Your task to perform on an android device: turn off notifications settings in the gmail app Image 0: 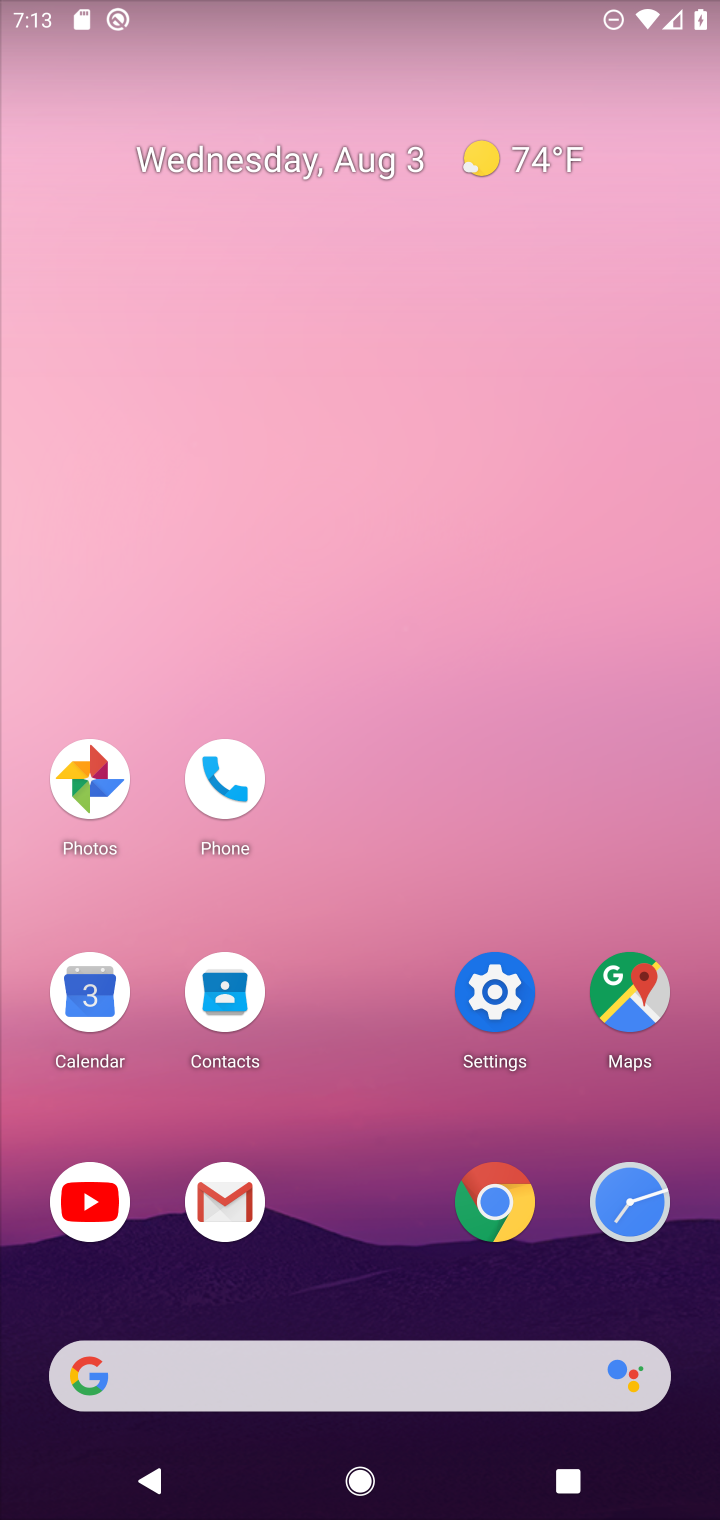
Step 0: click (216, 1199)
Your task to perform on an android device: turn off notifications settings in the gmail app Image 1: 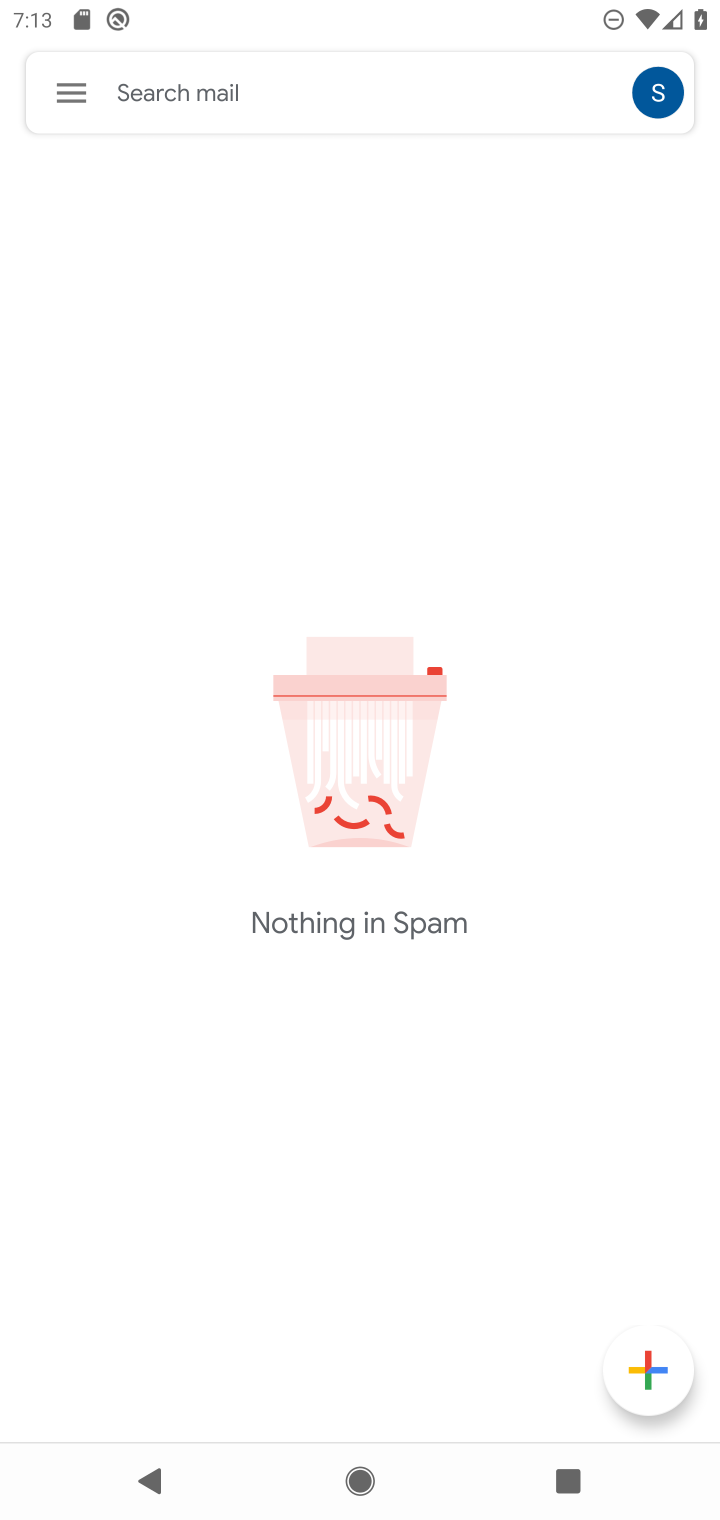
Step 1: click (68, 85)
Your task to perform on an android device: turn off notifications settings in the gmail app Image 2: 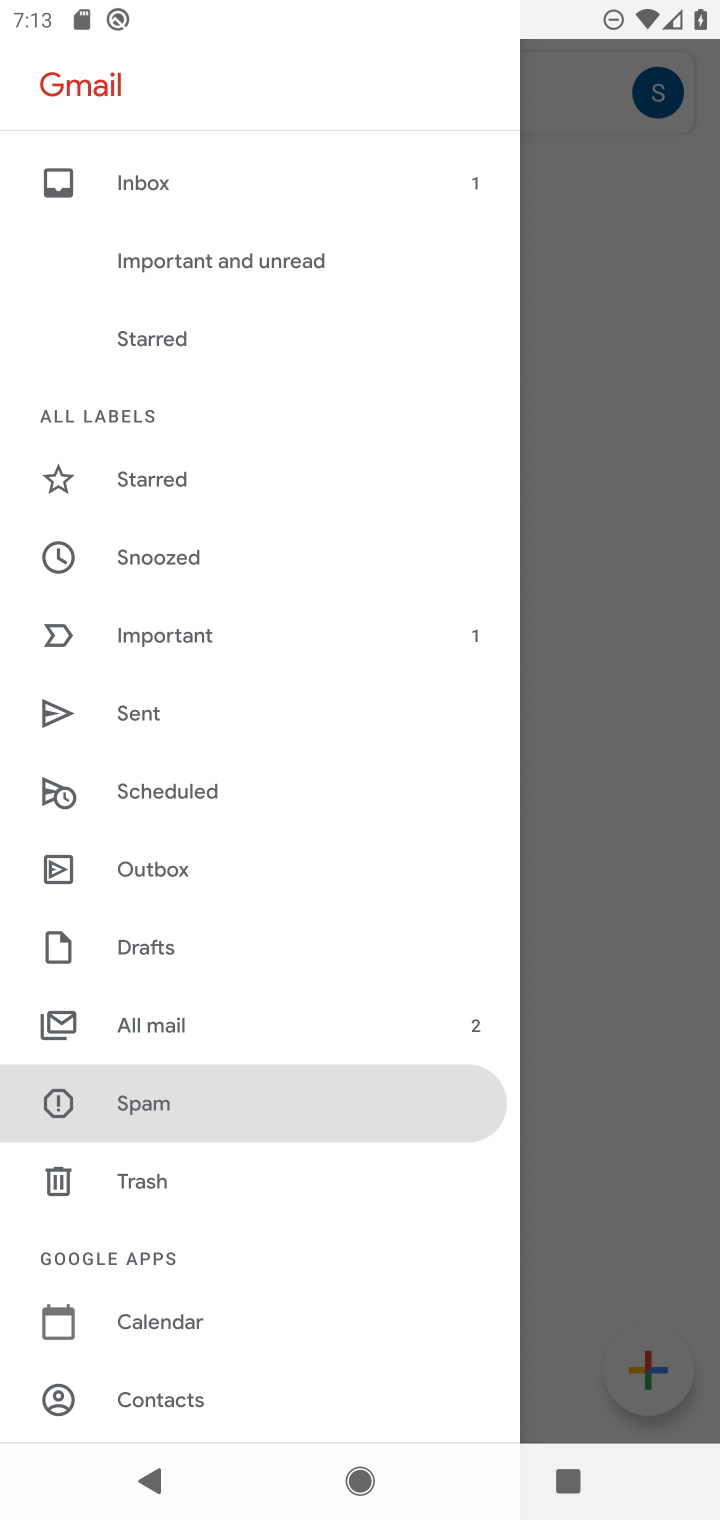
Step 2: drag from (253, 1307) to (258, 585)
Your task to perform on an android device: turn off notifications settings in the gmail app Image 3: 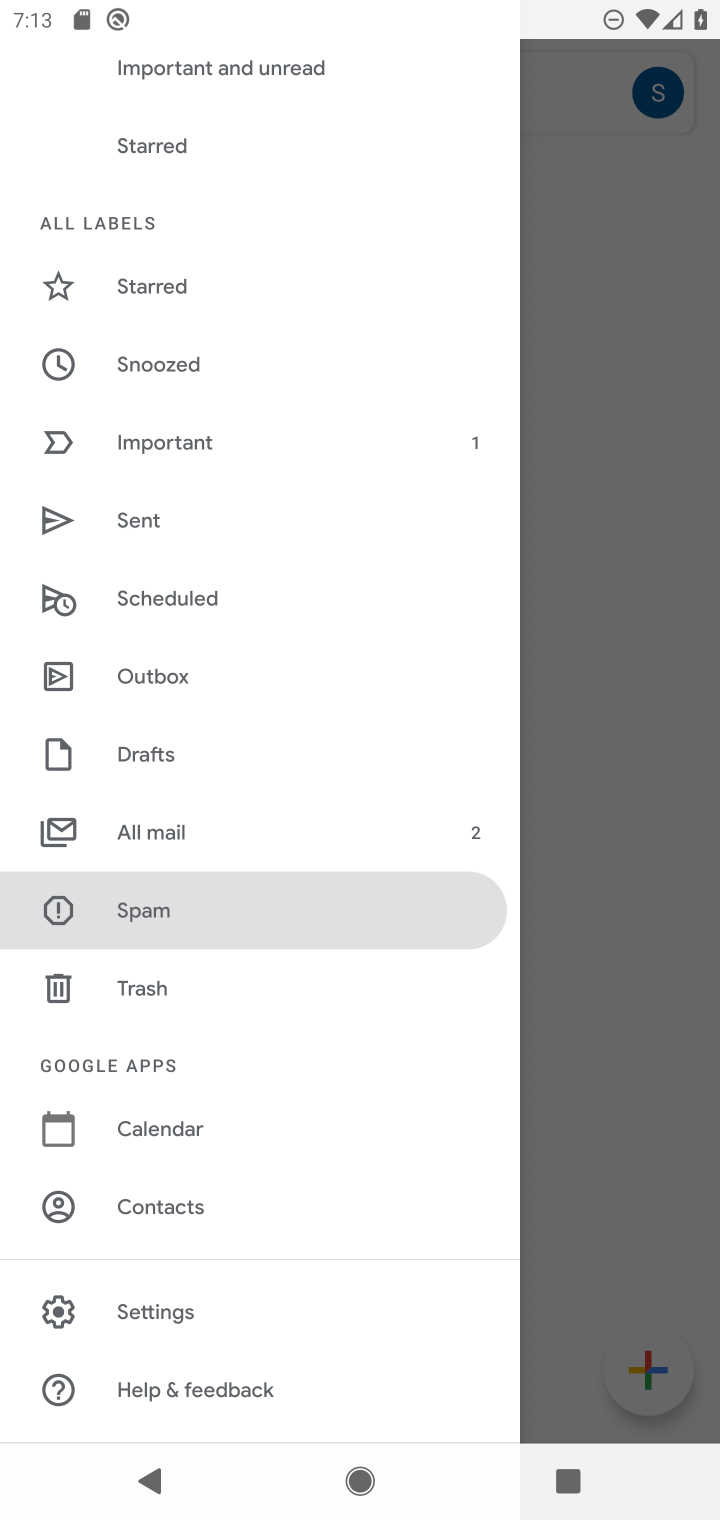
Step 3: click (150, 1308)
Your task to perform on an android device: turn off notifications settings in the gmail app Image 4: 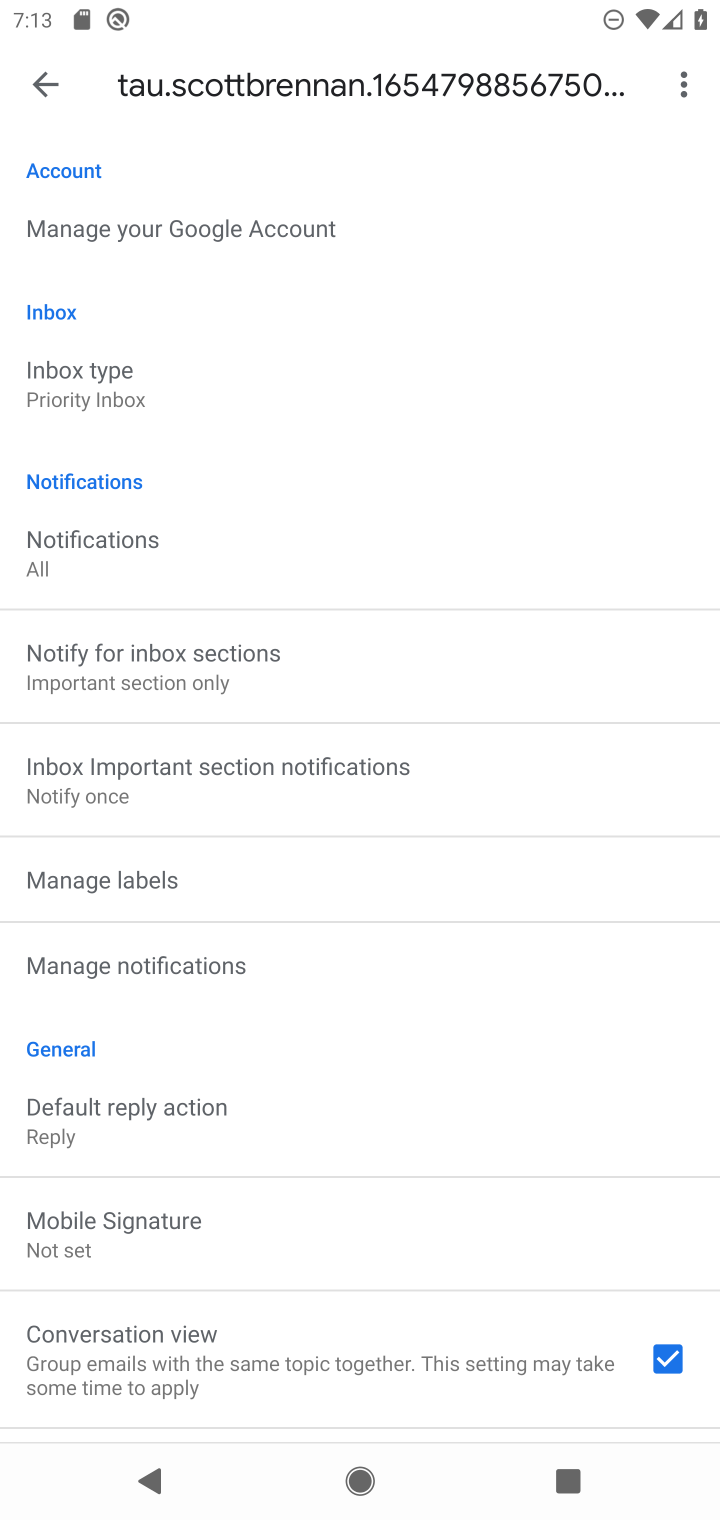
Step 4: click (50, 84)
Your task to perform on an android device: turn off notifications settings in the gmail app Image 5: 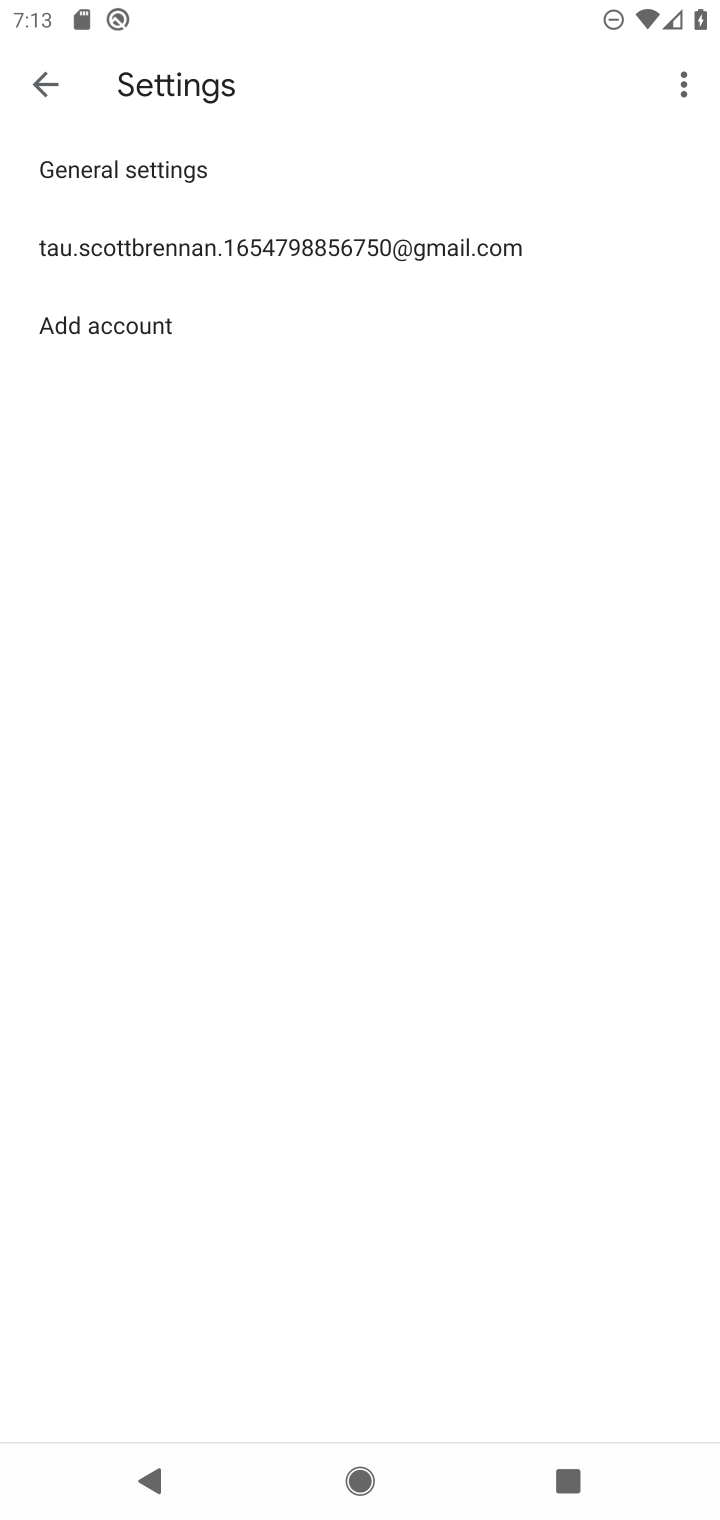
Step 5: click (103, 166)
Your task to perform on an android device: turn off notifications settings in the gmail app Image 6: 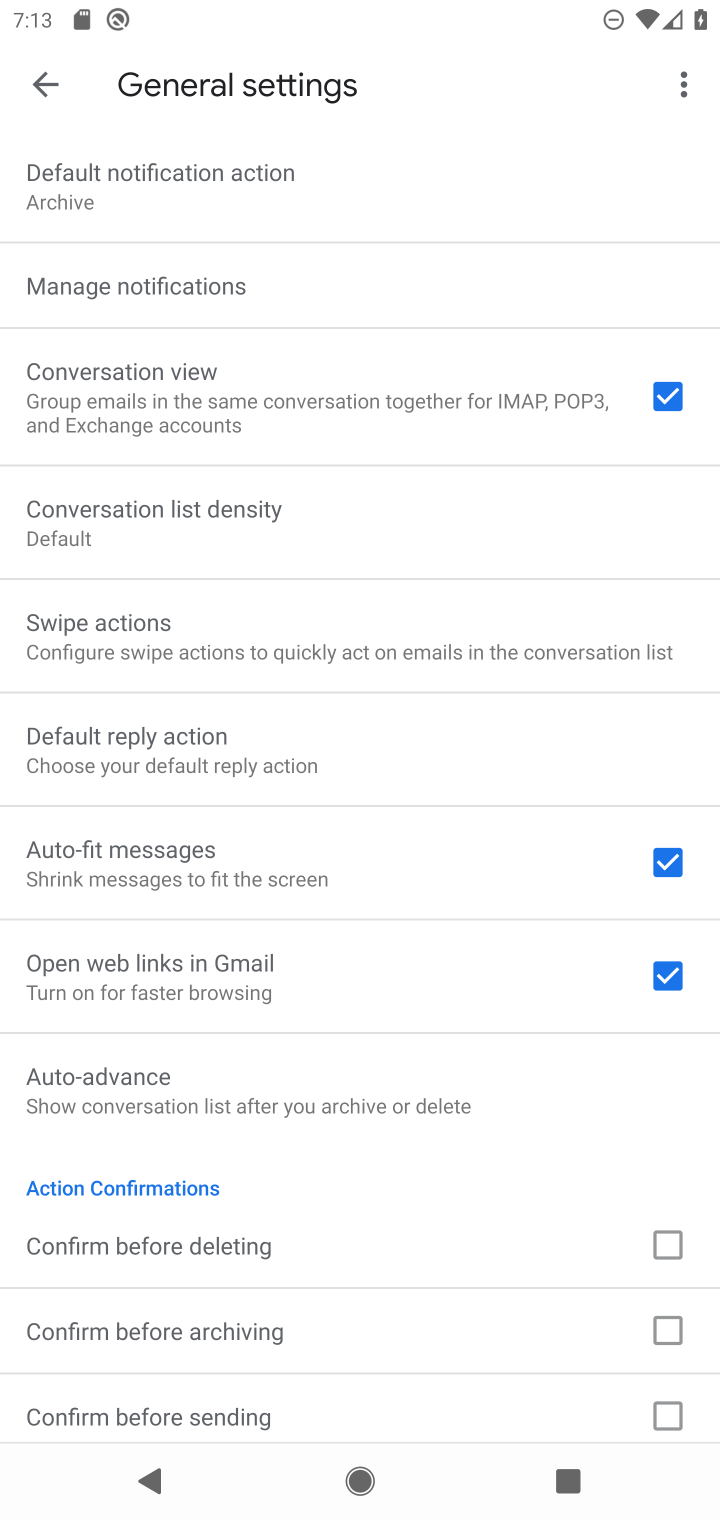
Step 6: click (128, 289)
Your task to perform on an android device: turn off notifications settings in the gmail app Image 7: 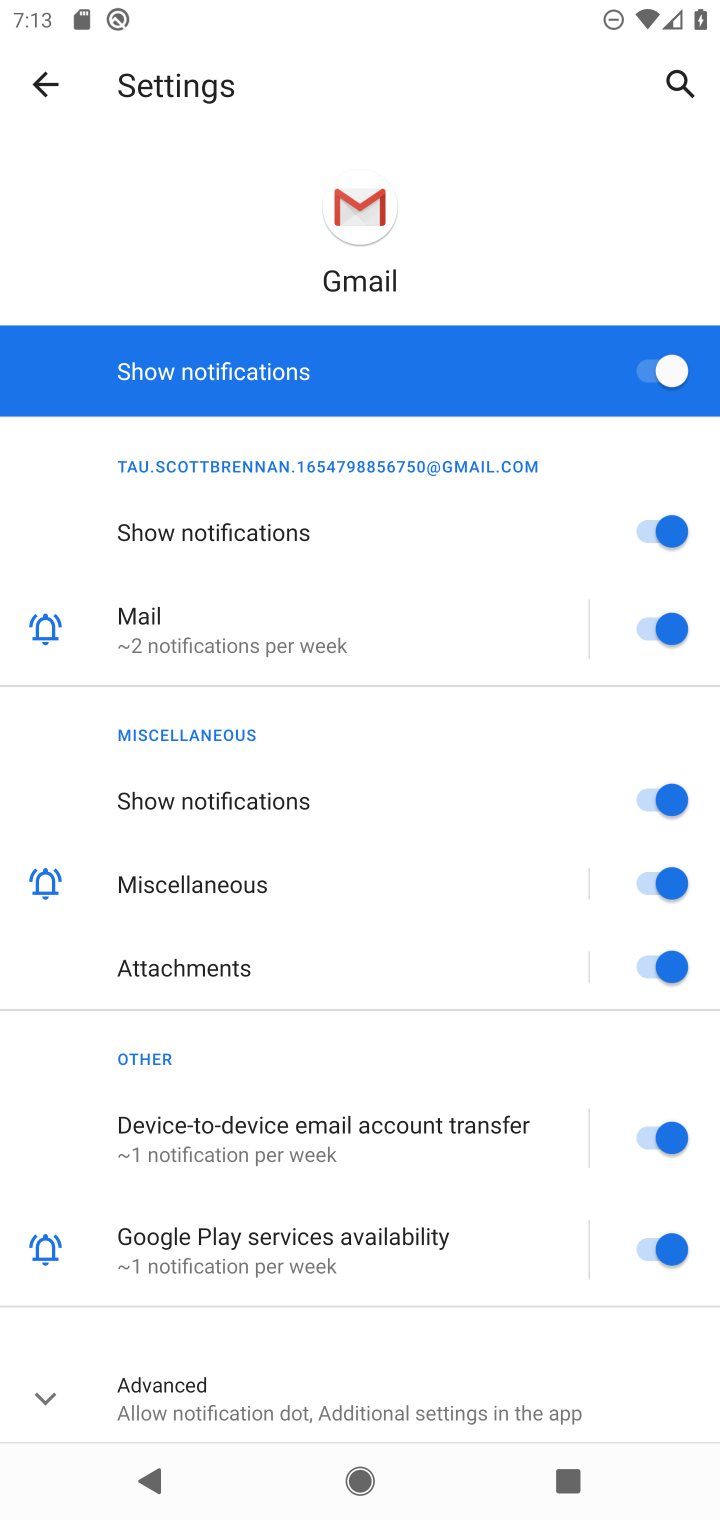
Step 7: click (656, 373)
Your task to perform on an android device: turn off notifications settings in the gmail app Image 8: 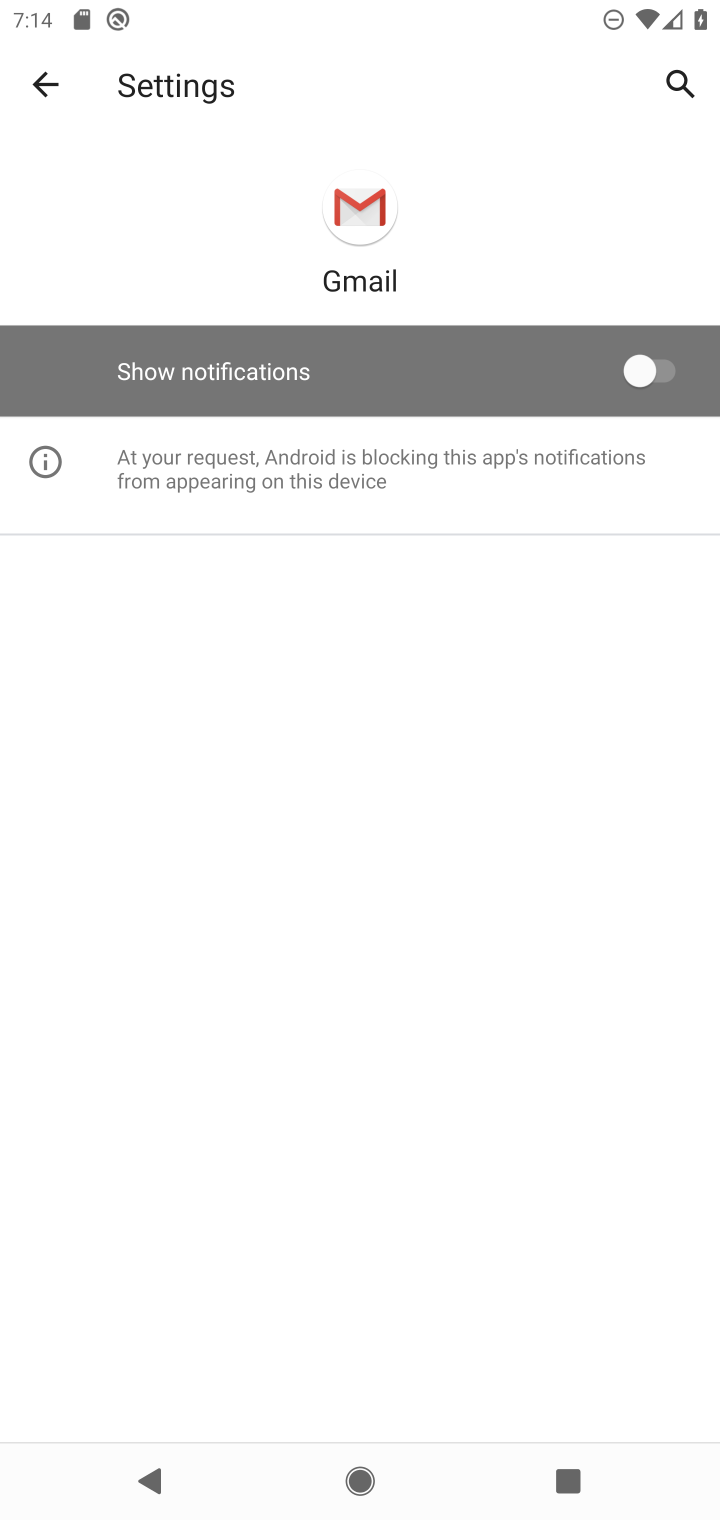
Step 8: task complete